Your task to perform on an android device: check storage Image 0: 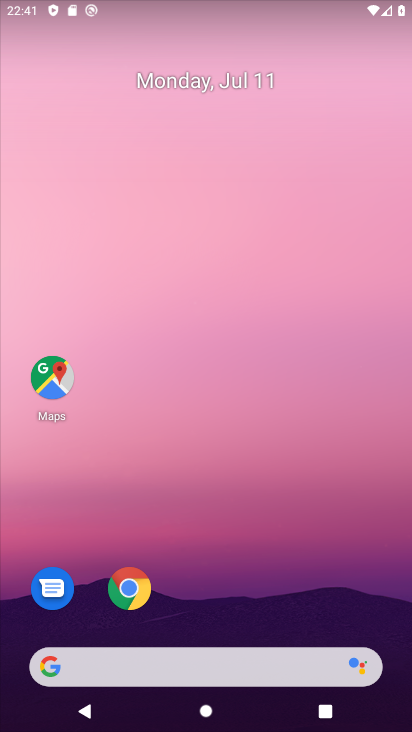
Step 0: drag from (237, 512) to (245, 185)
Your task to perform on an android device: check storage Image 1: 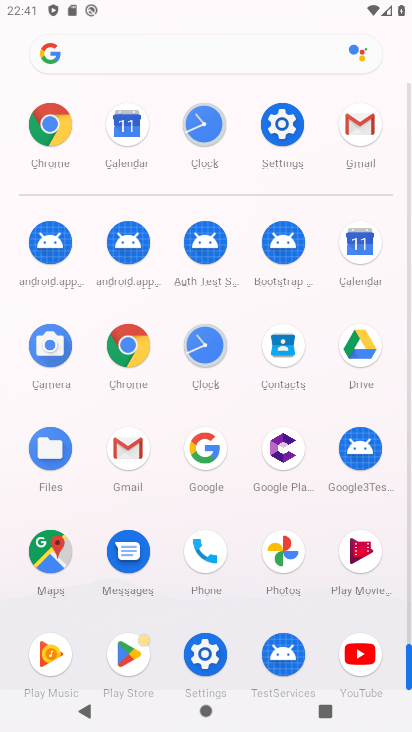
Step 1: click (287, 121)
Your task to perform on an android device: check storage Image 2: 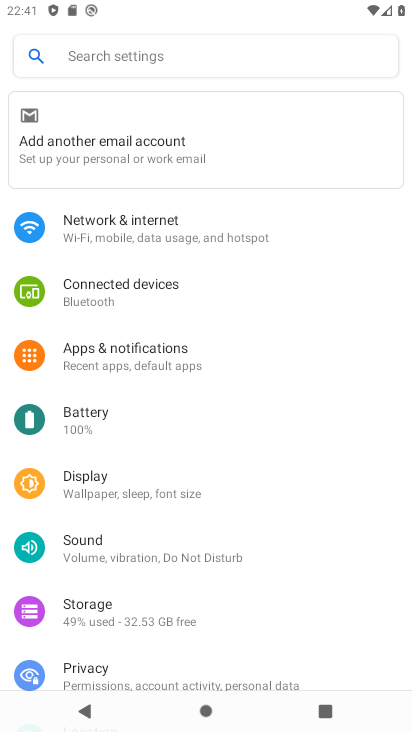
Step 2: click (85, 613)
Your task to perform on an android device: check storage Image 3: 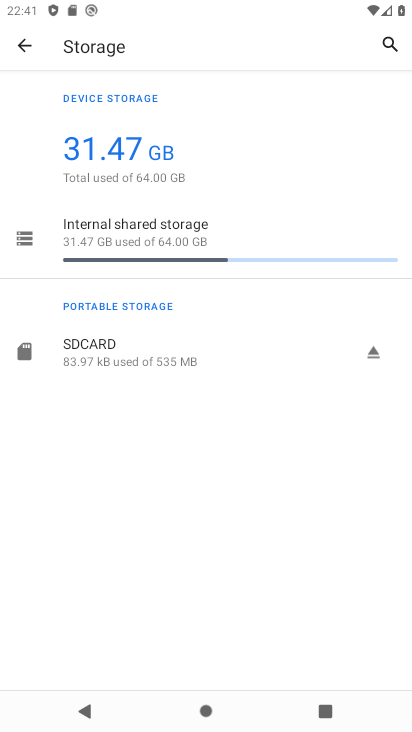
Step 3: task complete